Your task to perform on an android device: open wifi settings Image 0: 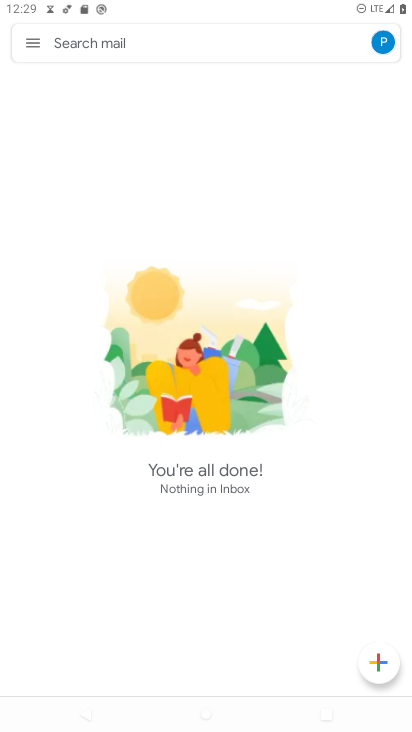
Step 0: press home button
Your task to perform on an android device: open wifi settings Image 1: 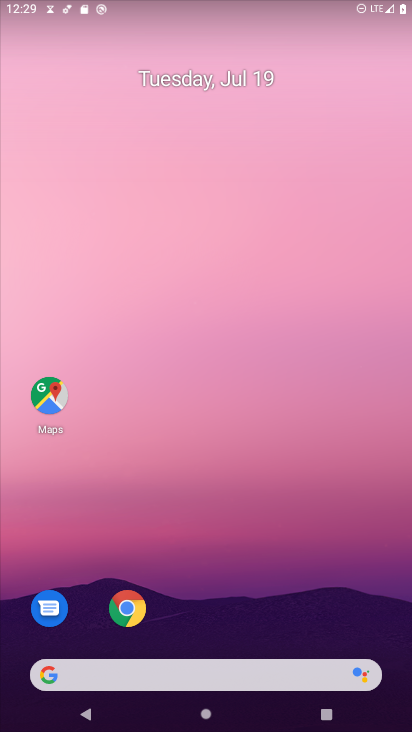
Step 1: drag from (287, 675) to (299, 34)
Your task to perform on an android device: open wifi settings Image 2: 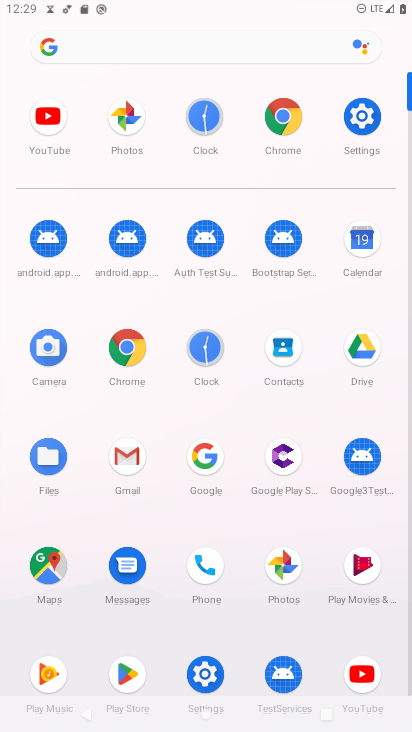
Step 2: click (356, 107)
Your task to perform on an android device: open wifi settings Image 3: 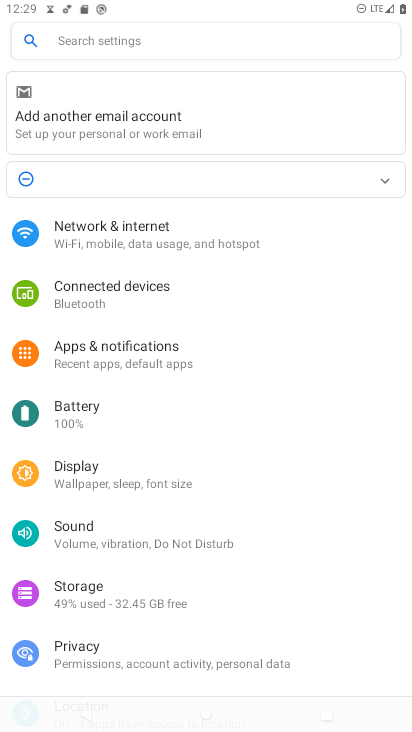
Step 3: click (142, 241)
Your task to perform on an android device: open wifi settings Image 4: 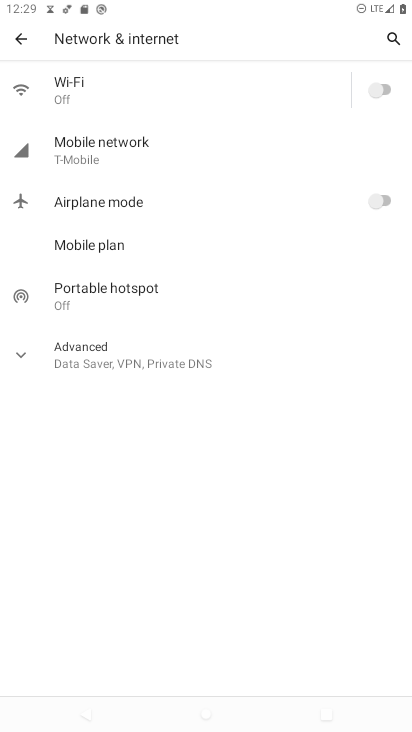
Step 4: task complete